Your task to perform on an android device: Go to sound settings Image 0: 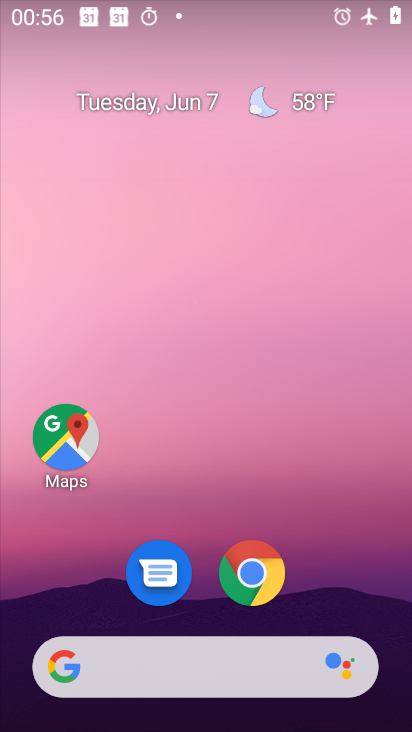
Step 0: press home button
Your task to perform on an android device: Go to sound settings Image 1: 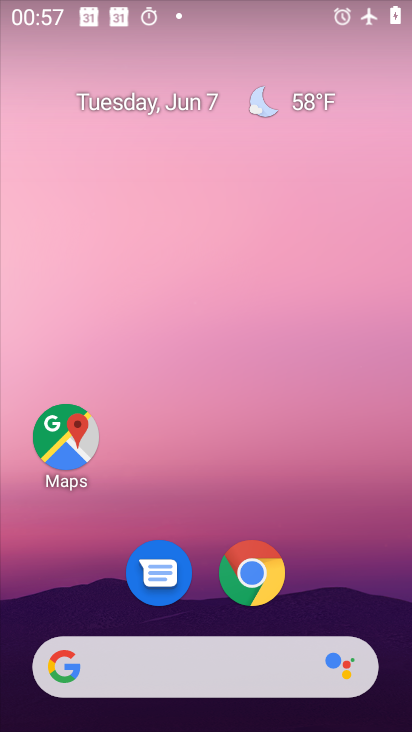
Step 1: drag from (379, 589) to (345, 145)
Your task to perform on an android device: Go to sound settings Image 2: 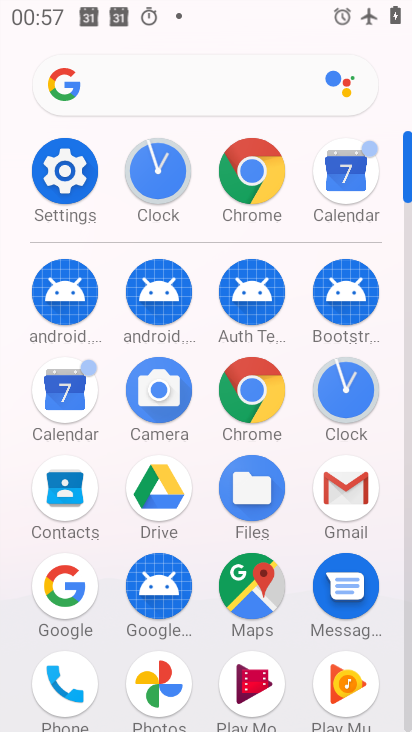
Step 2: click (93, 182)
Your task to perform on an android device: Go to sound settings Image 3: 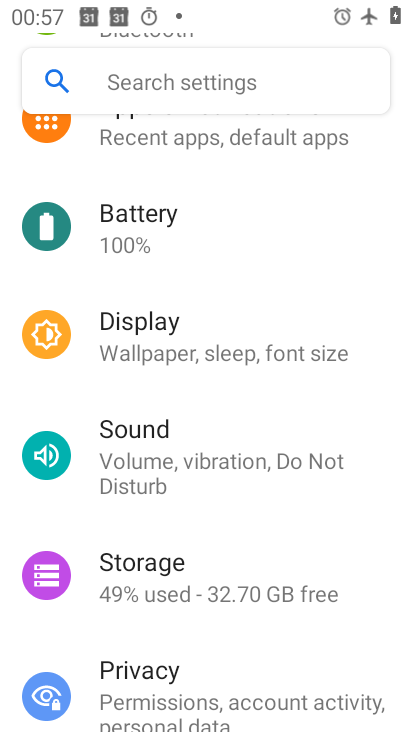
Step 3: click (152, 488)
Your task to perform on an android device: Go to sound settings Image 4: 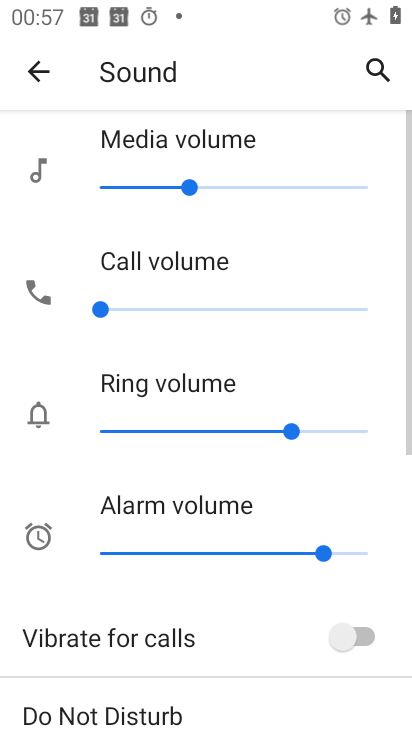
Step 4: task complete